Your task to perform on an android device: Turn off the flashlight Image 0: 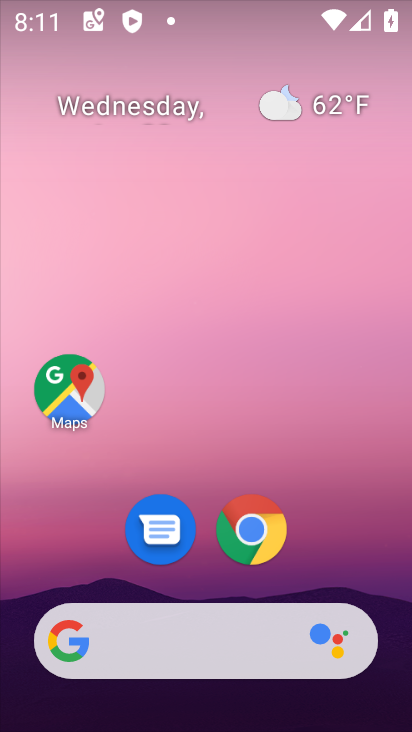
Step 0: drag from (211, 470) to (268, 131)
Your task to perform on an android device: Turn off the flashlight Image 1: 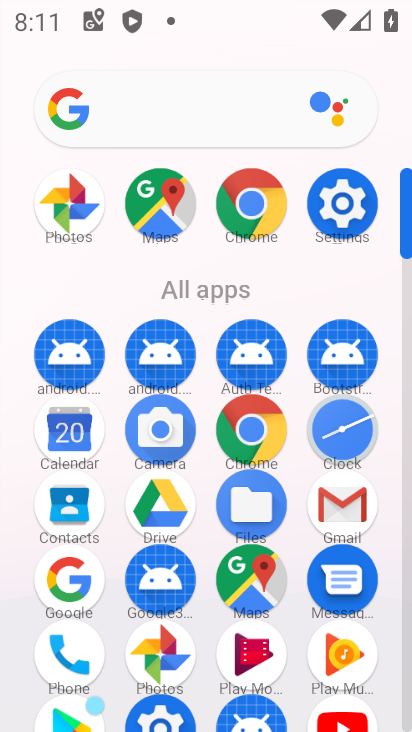
Step 1: click (347, 198)
Your task to perform on an android device: Turn off the flashlight Image 2: 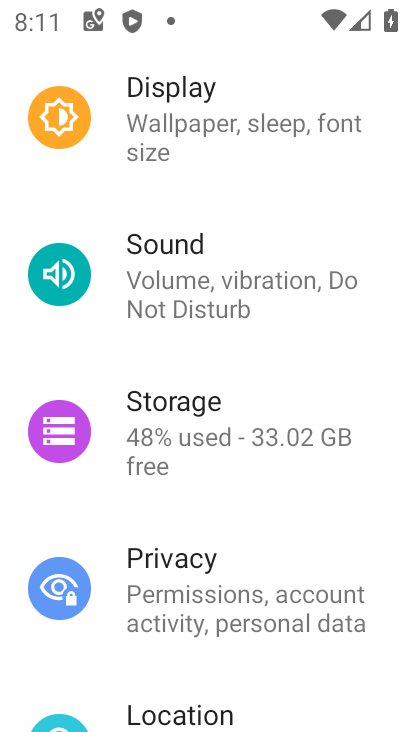
Step 2: drag from (249, 143) to (215, 545)
Your task to perform on an android device: Turn off the flashlight Image 3: 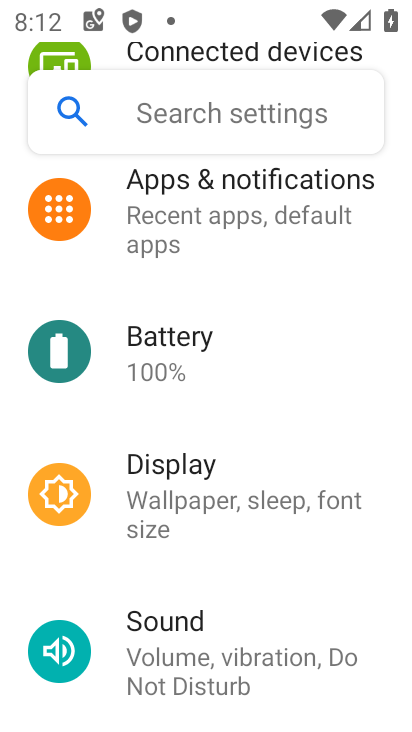
Step 3: drag from (170, 365) to (191, 540)
Your task to perform on an android device: Turn off the flashlight Image 4: 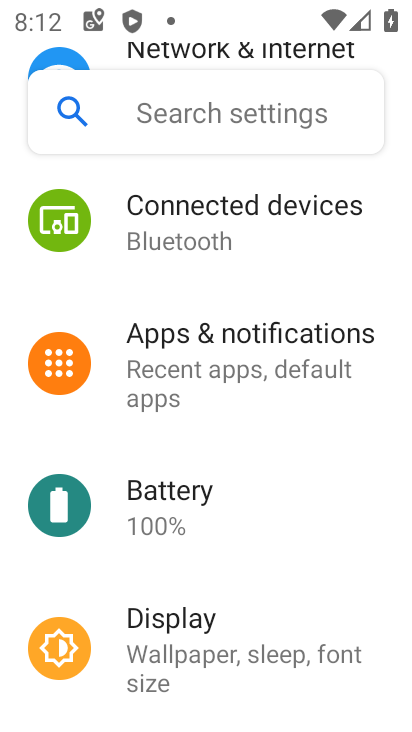
Step 4: drag from (189, 265) to (199, 568)
Your task to perform on an android device: Turn off the flashlight Image 5: 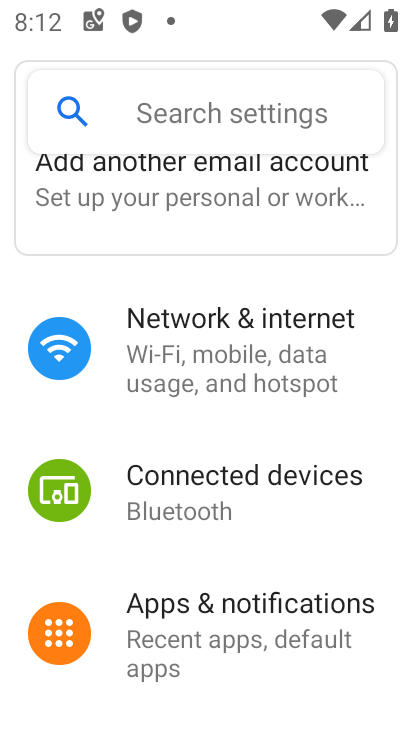
Step 5: drag from (210, 541) to (195, 259)
Your task to perform on an android device: Turn off the flashlight Image 6: 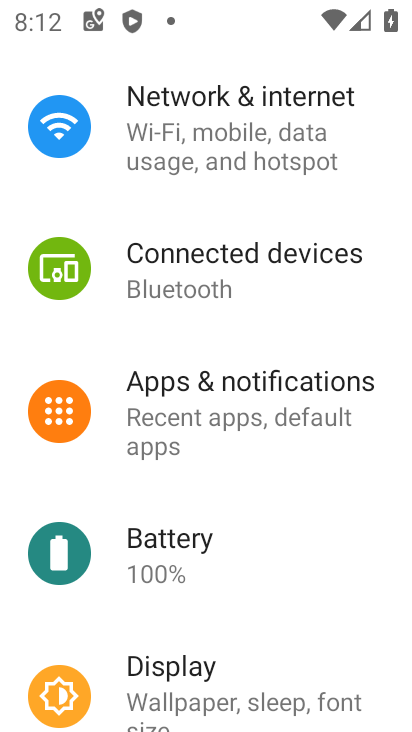
Step 6: click (191, 681)
Your task to perform on an android device: Turn off the flashlight Image 7: 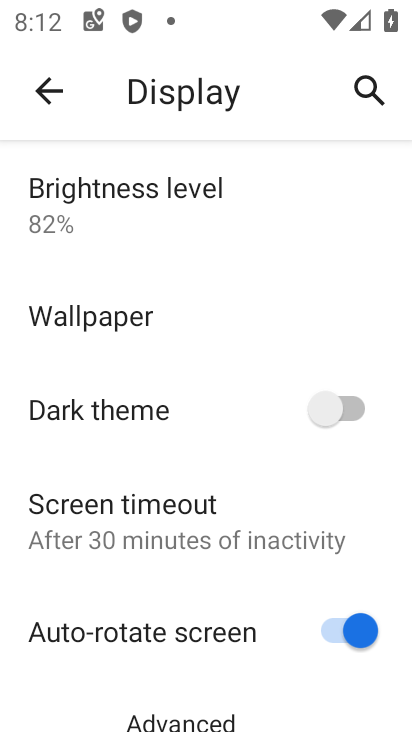
Step 7: task complete